Your task to perform on an android device: change keyboard looks Image 0: 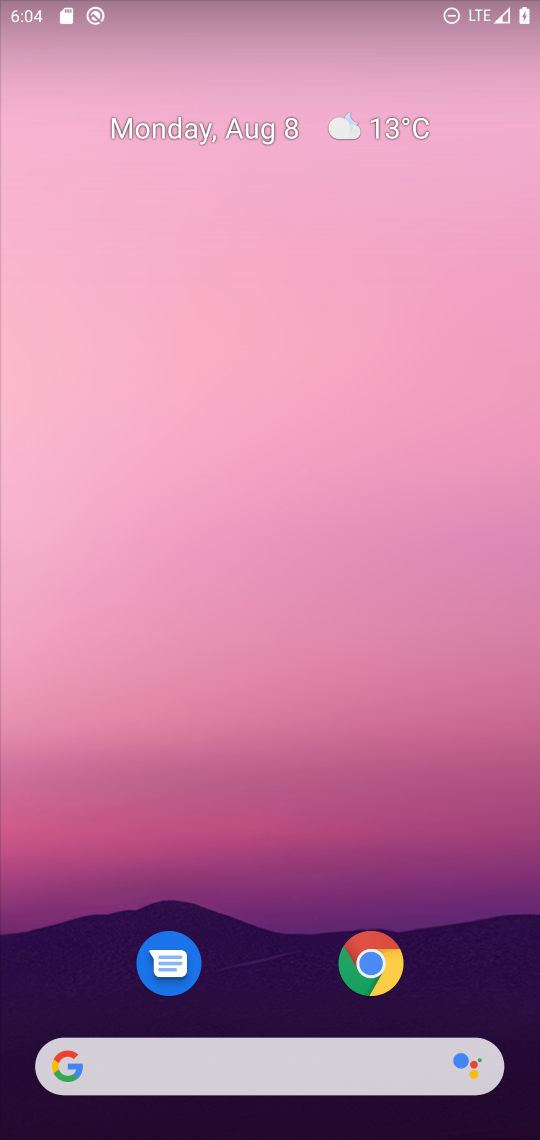
Step 0: press home button
Your task to perform on an android device: change keyboard looks Image 1: 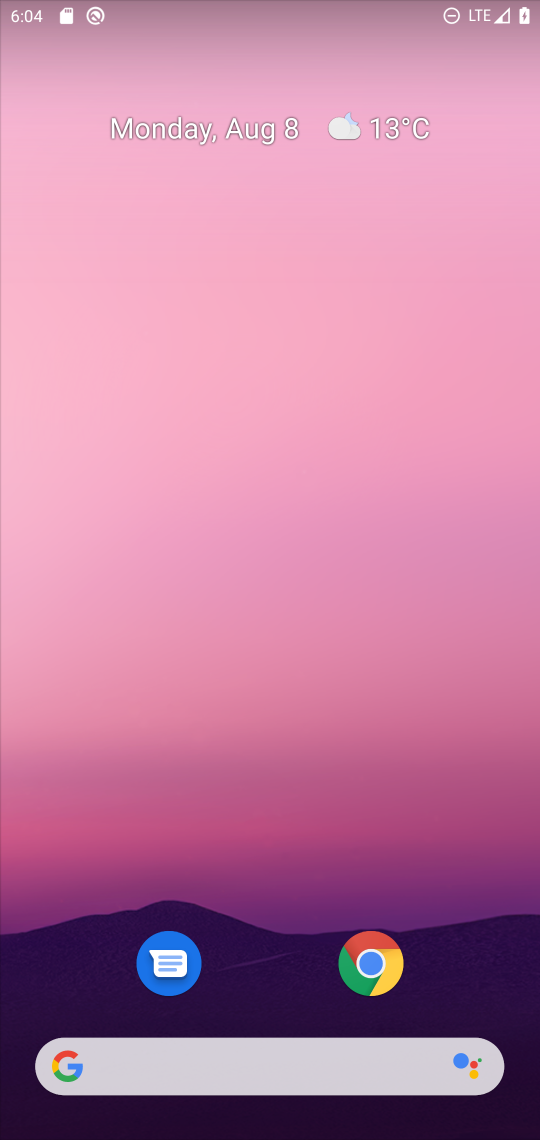
Step 1: drag from (273, 872) to (272, 118)
Your task to perform on an android device: change keyboard looks Image 2: 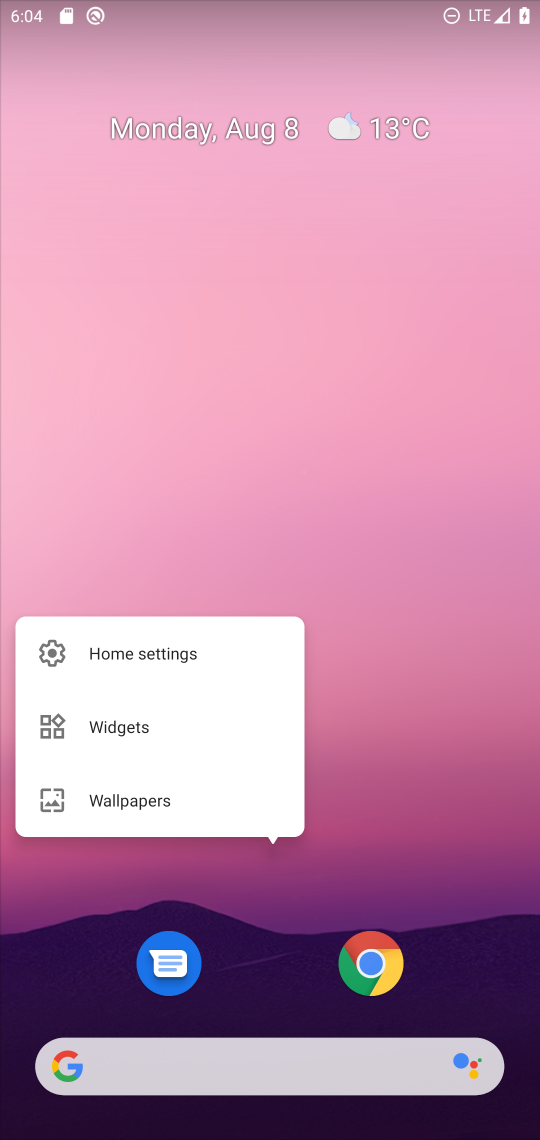
Step 2: click (411, 552)
Your task to perform on an android device: change keyboard looks Image 3: 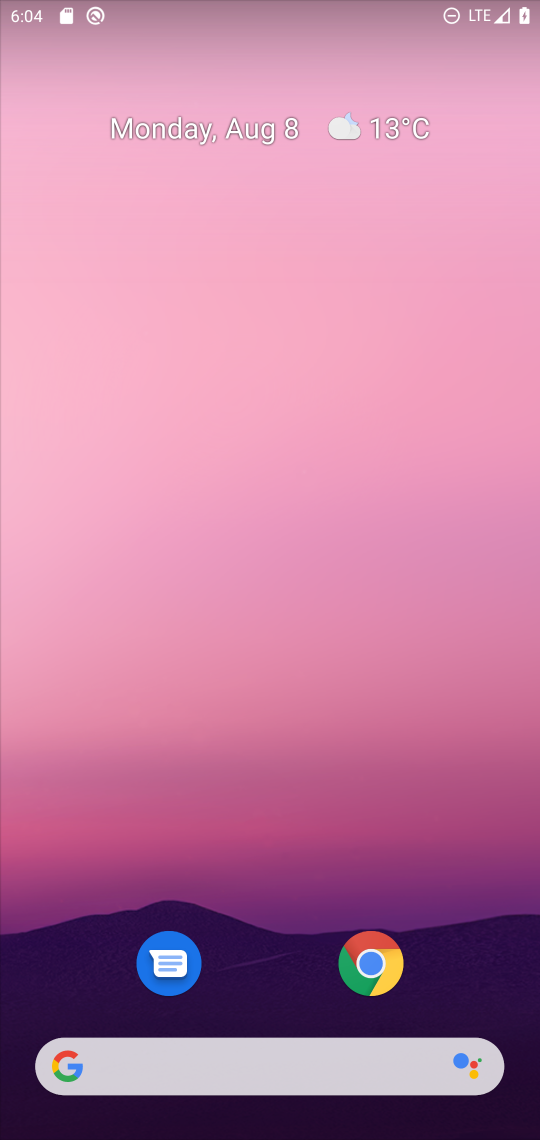
Step 3: drag from (285, 872) to (287, 359)
Your task to perform on an android device: change keyboard looks Image 4: 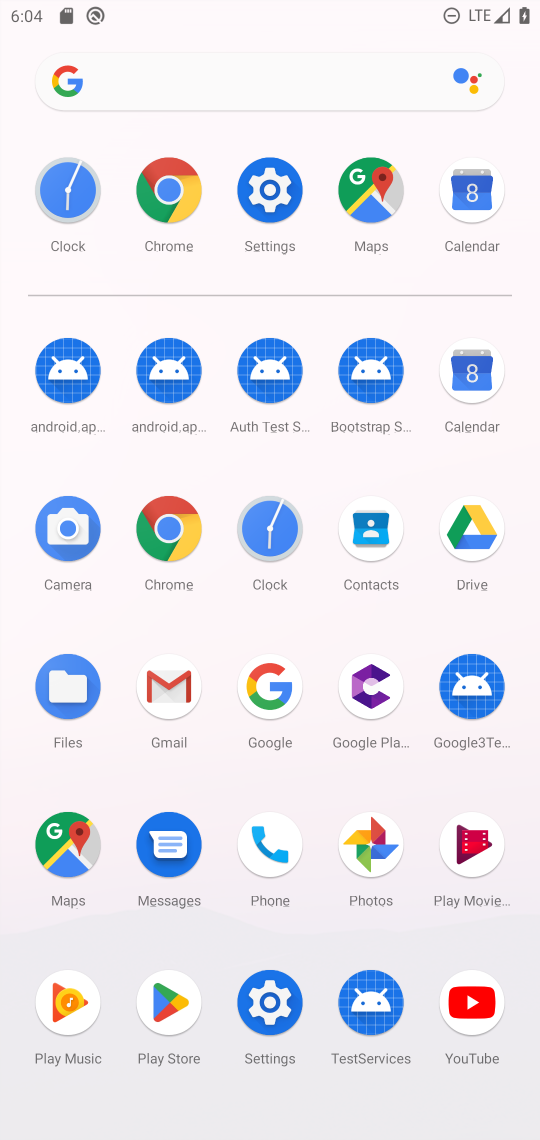
Step 4: click (270, 189)
Your task to perform on an android device: change keyboard looks Image 5: 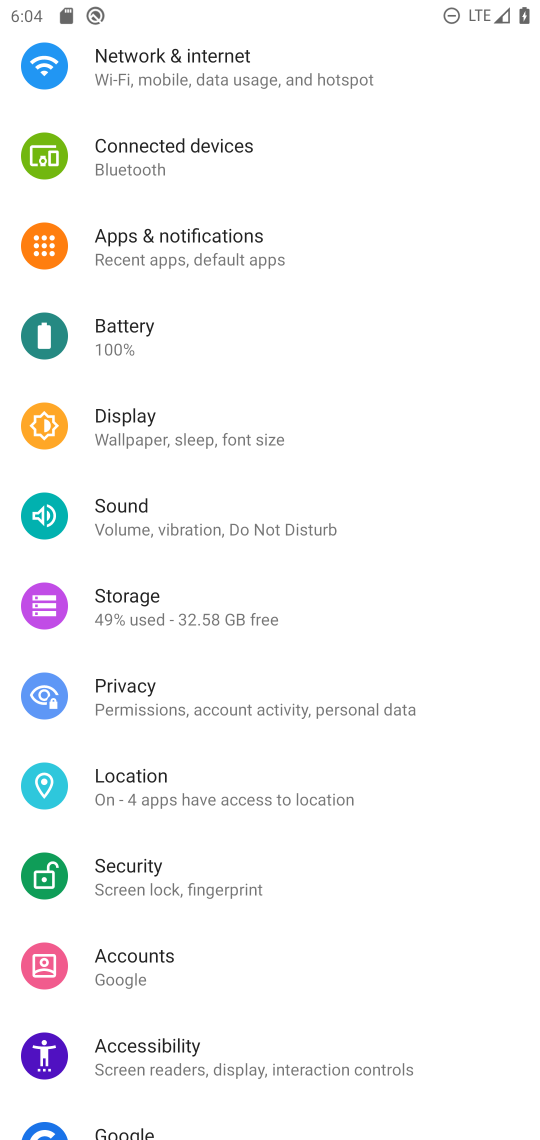
Step 5: drag from (276, 941) to (254, 420)
Your task to perform on an android device: change keyboard looks Image 6: 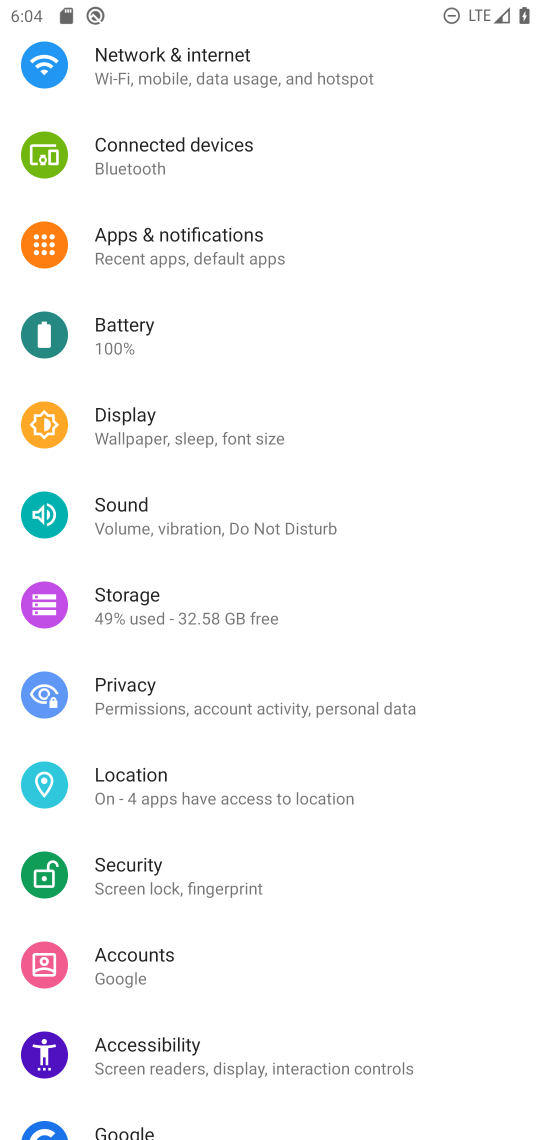
Step 6: drag from (161, 962) to (309, 202)
Your task to perform on an android device: change keyboard looks Image 7: 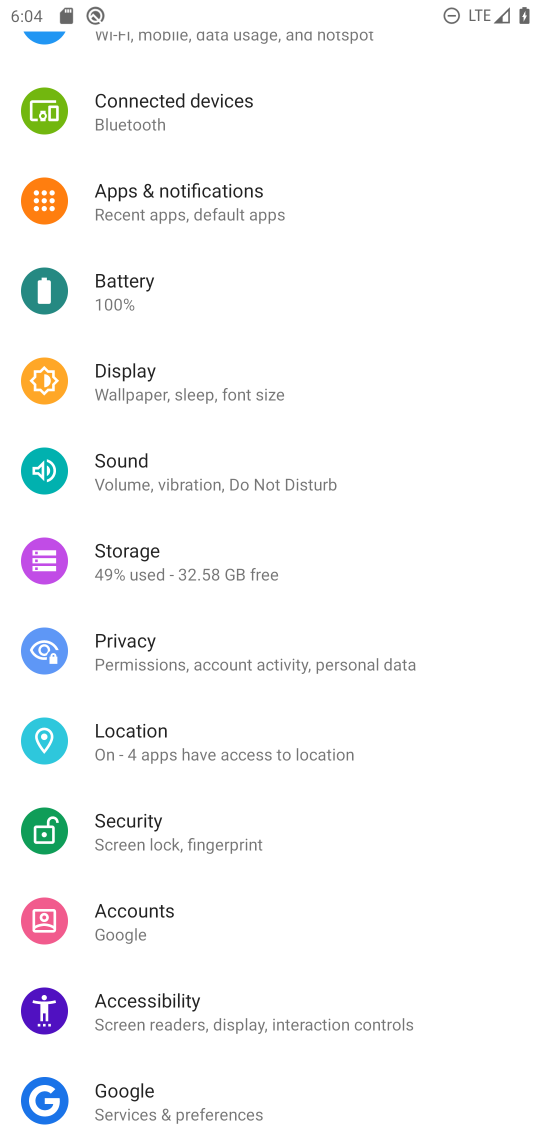
Step 7: drag from (213, 977) to (246, 234)
Your task to perform on an android device: change keyboard looks Image 8: 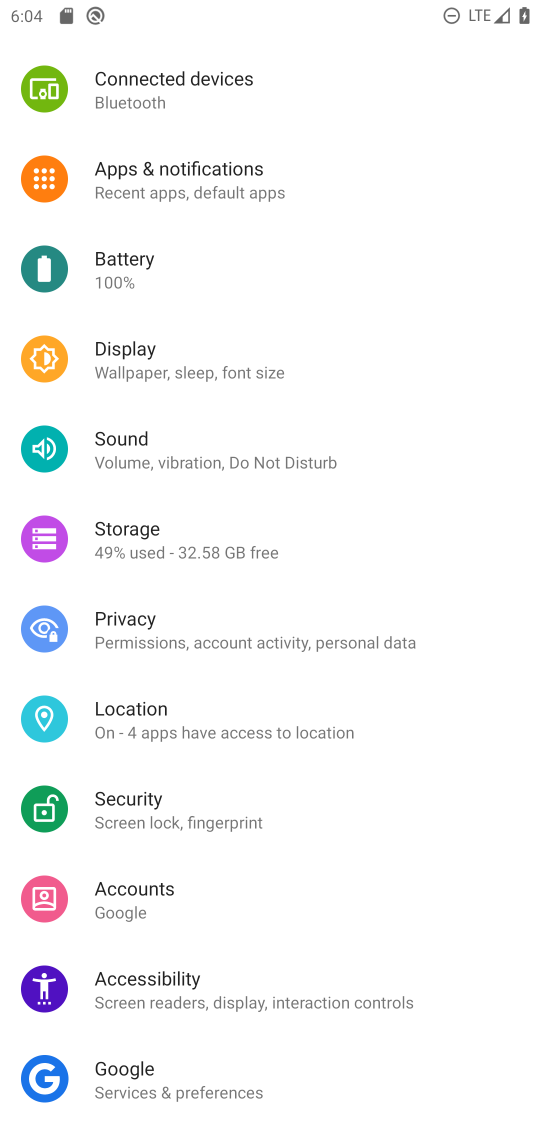
Step 8: drag from (207, 1073) to (225, 303)
Your task to perform on an android device: change keyboard looks Image 9: 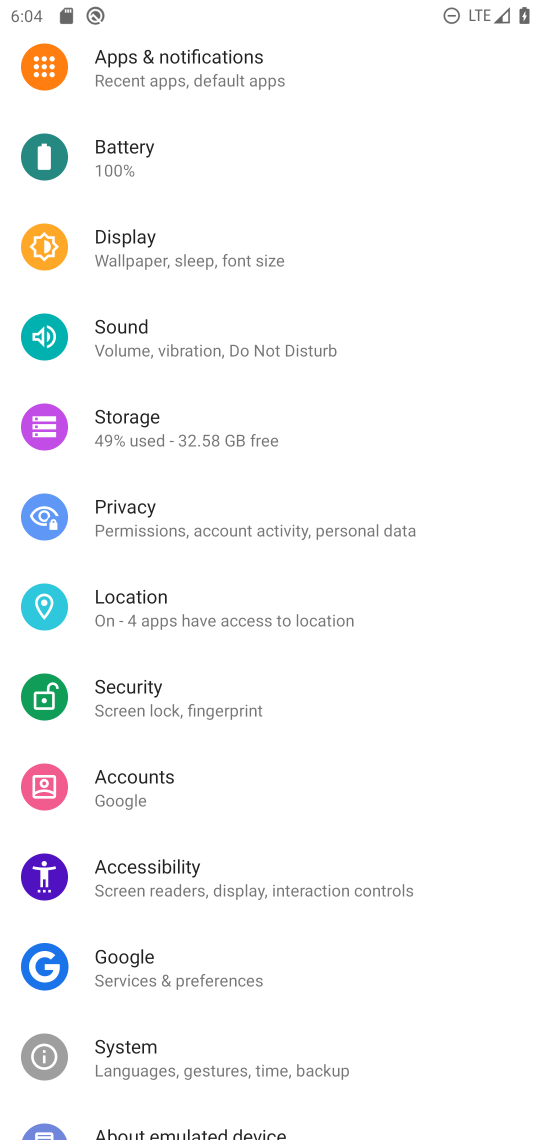
Step 9: click (173, 1068)
Your task to perform on an android device: change keyboard looks Image 10: 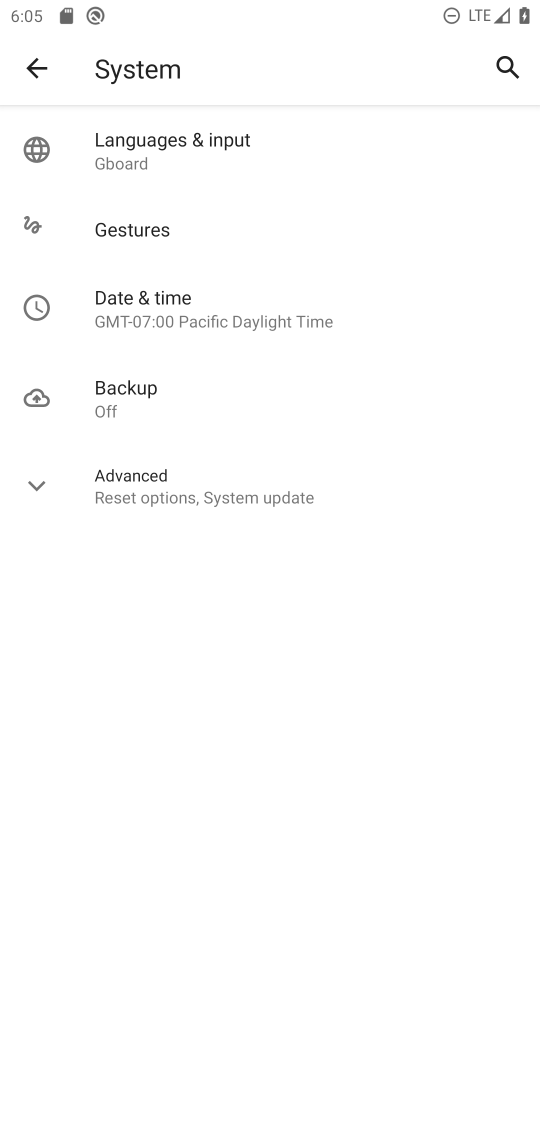
Step 10: click (226, 154)
Your task to perform on an android device: change keyboard looks Image 11: 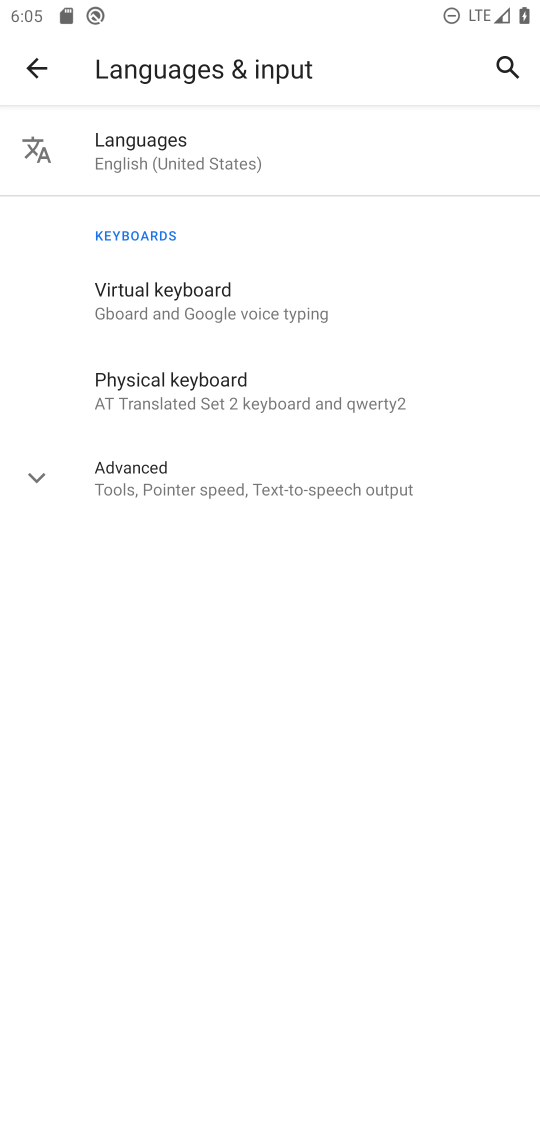
Step 11: click (155, 305)
Your task to perform on an android device: change keyboard looks Image 12: 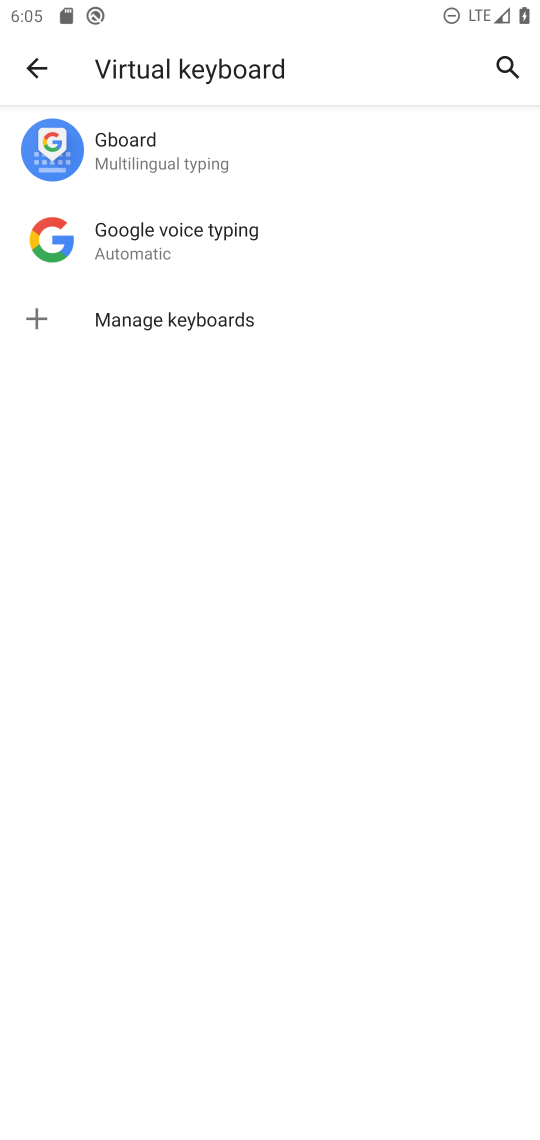
Step 12: click (207, 154)
Your task to perform on an android device: change keyboard looks Image 13: 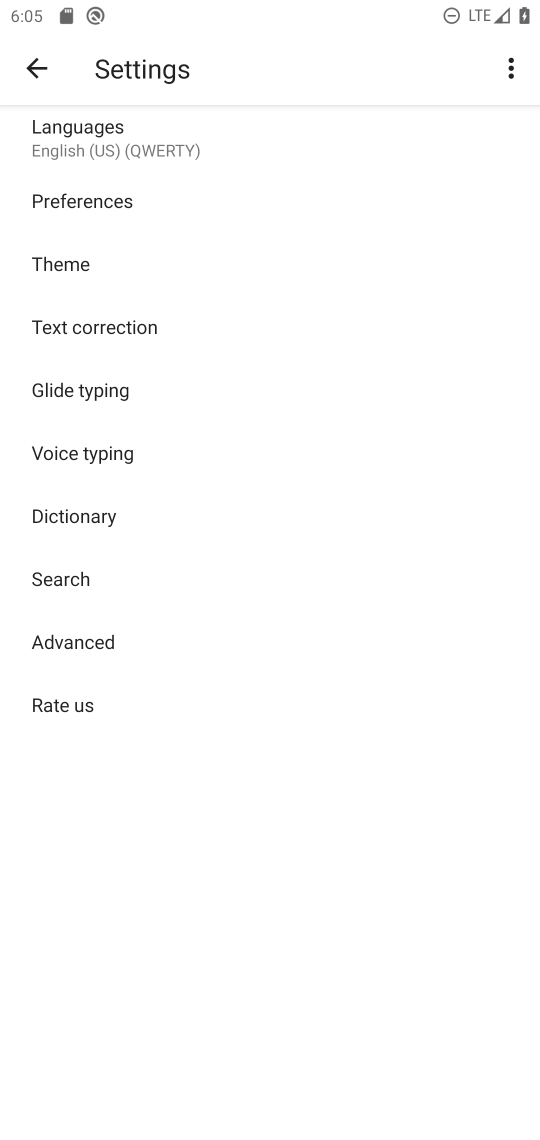
Step 13: click (96, 259)
Your task to perform on an android device: change keyboard looks Image 14: 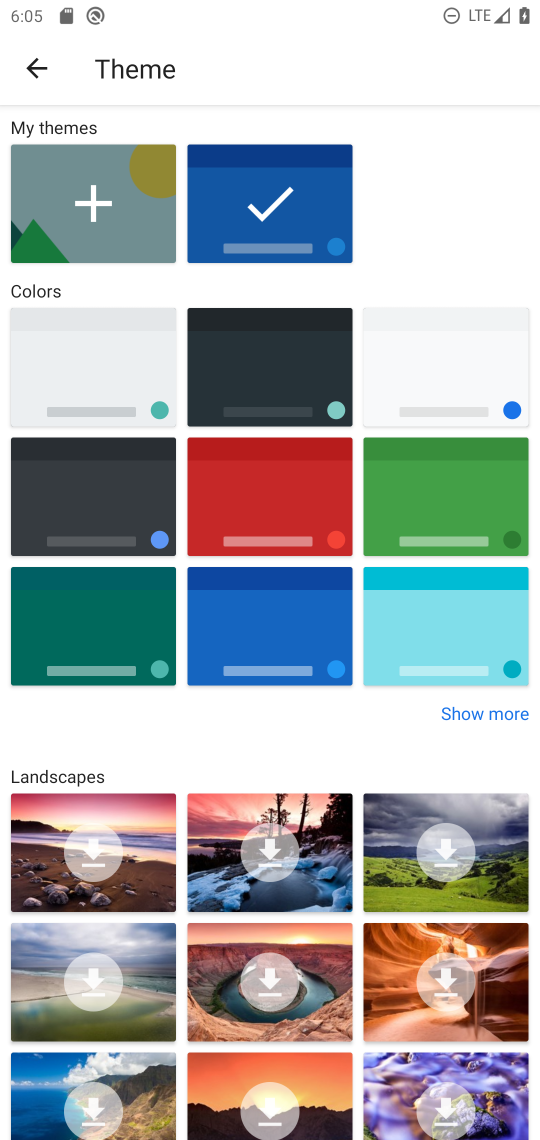
Step 14: click (250, 364)
Your task to perform on an android device: change keyboard looks Image 15: 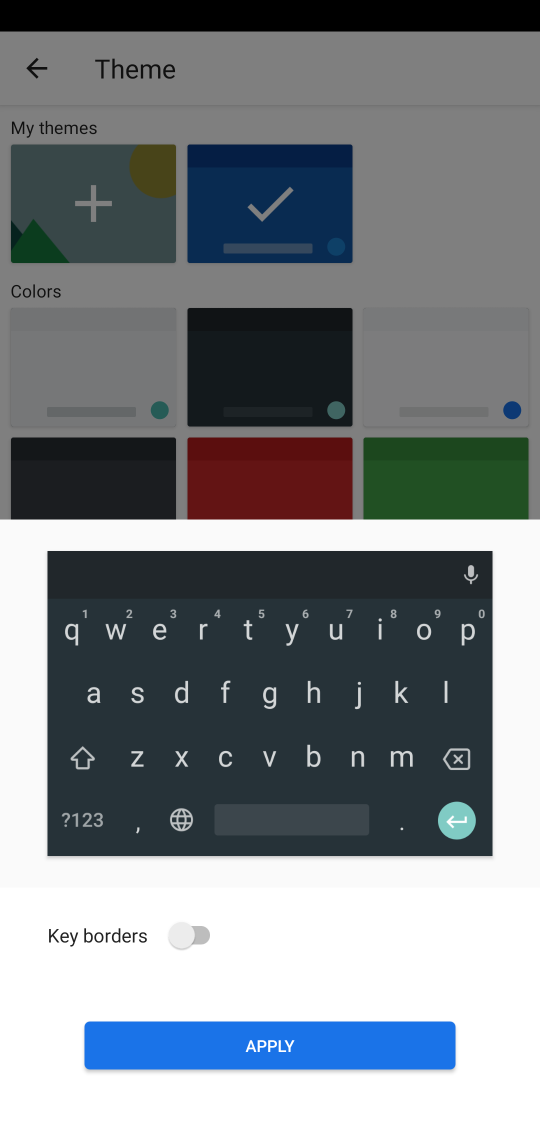
Step 15: click (303, 1047)
Your task to perform on an android device: change keyboard looks Image 16: 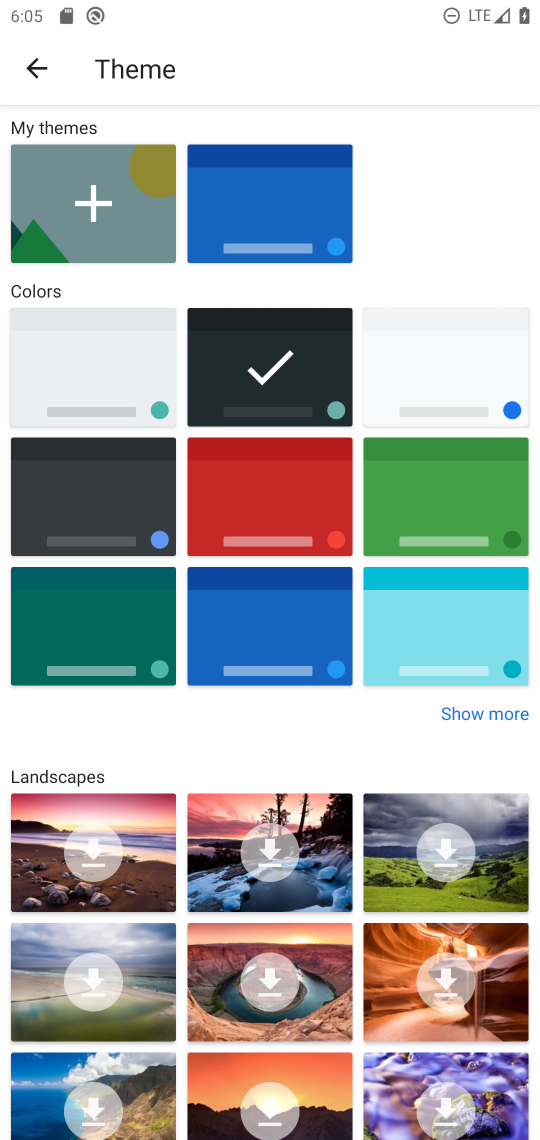
Step 16: task complete